Your task to perform on an android device: turn on showing notifications on the lock screen Image 0: 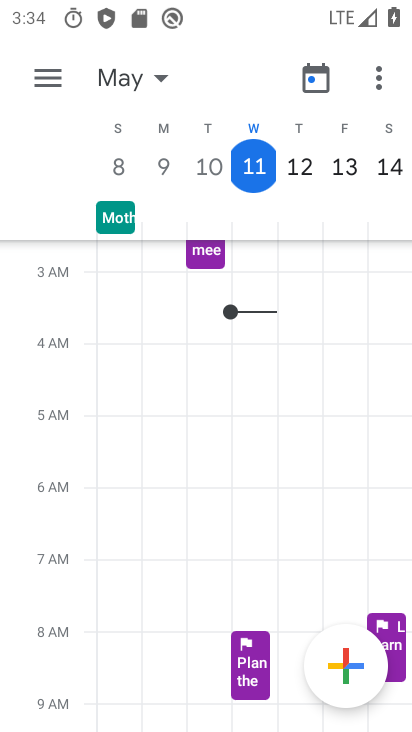
Step 0: press home button
Your task to perform on an android device: turn on showing notifications on the lock screen Image 1: 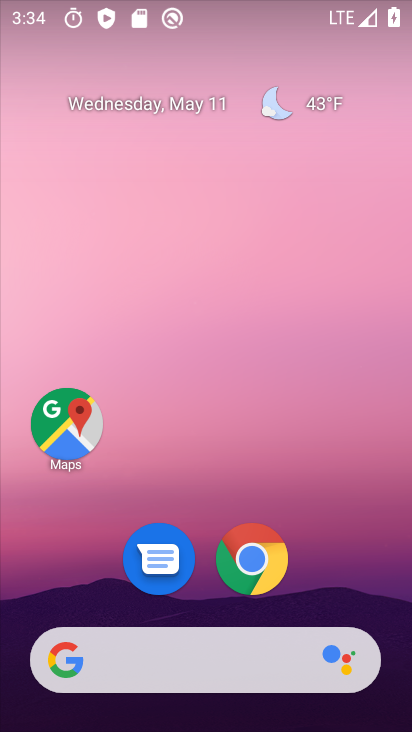
Step 1: drag from (346, 559) to (187, 5)
Your task to perform on an android device: turn on showing notifications on the lock screen Image 2: 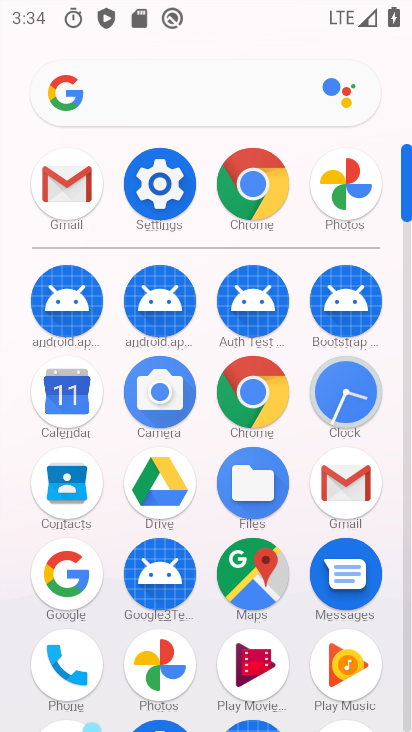
Step 2: click (164, 195)
Your task to perform on an android device: turn on showing notifications on the lock screen Image 3: 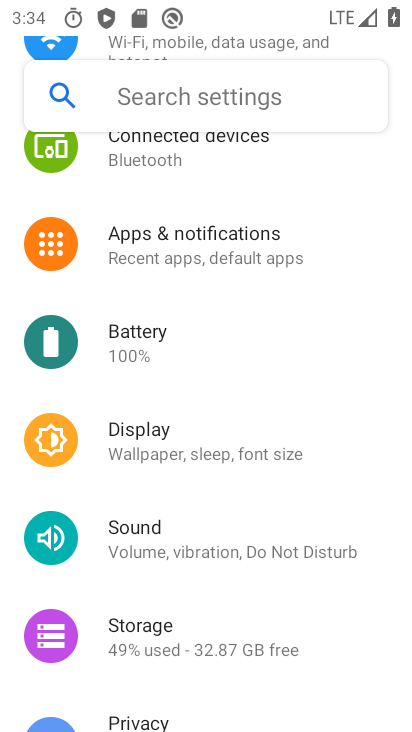
Step 3: click (229, 238)
Your task to perform on an android device: turn on showing notifications on the lock screen Image 4: 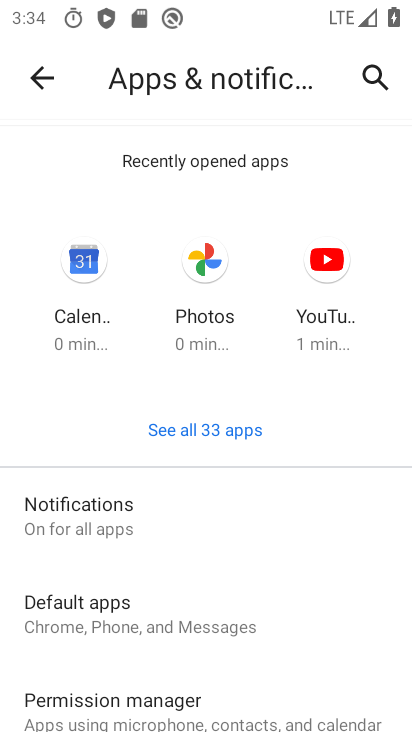
Step 4: click (196, 525)
Your task to perform on an android device: turn on showing notifications on the lock screen Image 5: 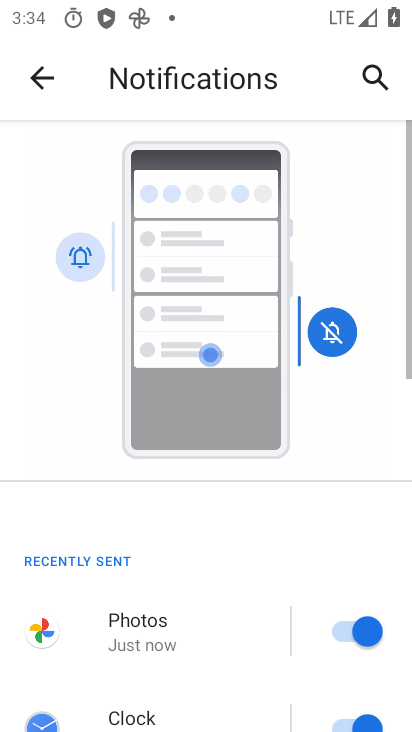
Step 5: drag from (255, 559) to (211, 121)
Your task to perform on an android device: turn on showing notifications on the lock screen Image 6: 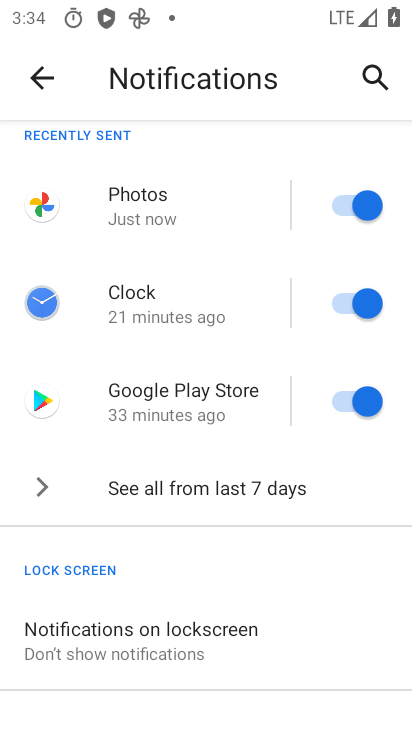
Step 6: drag from (230, 560) to (215, 408)
Your task to perform on an android device: turn on showing notifications on the lock screen Image 7: 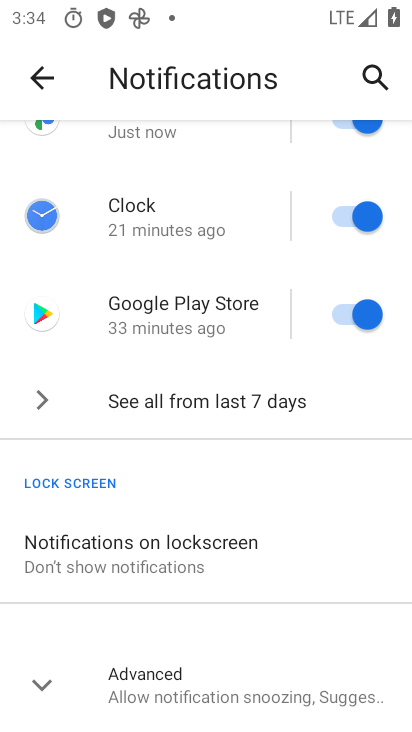
Step 7: click (193, 540)
Your task to perform on an android device: turn on showing notifications on the lock screen Image 8: 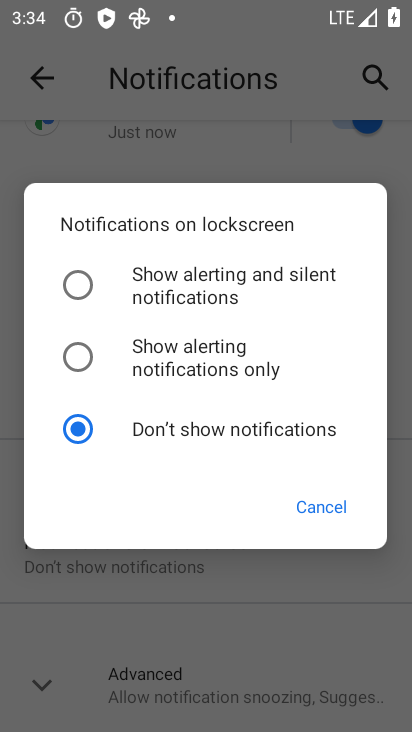
Step 8: click (171, 270)
Your task to perform on an android device: turn on showing notifications on the lock screen Image 9: 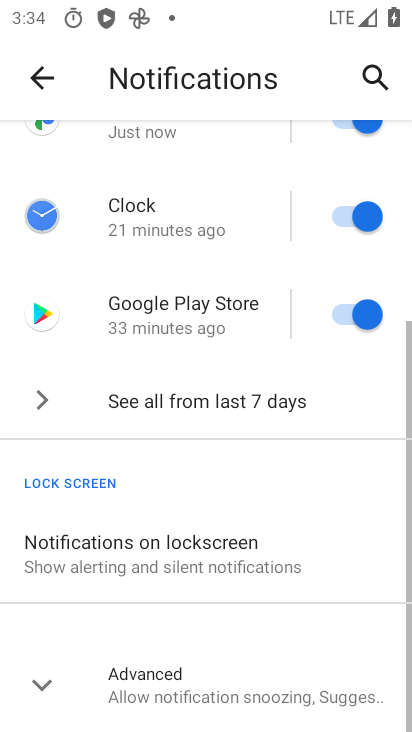
Step 9: task complete